Your task to perform on an android device: Open battery settings Image 0: 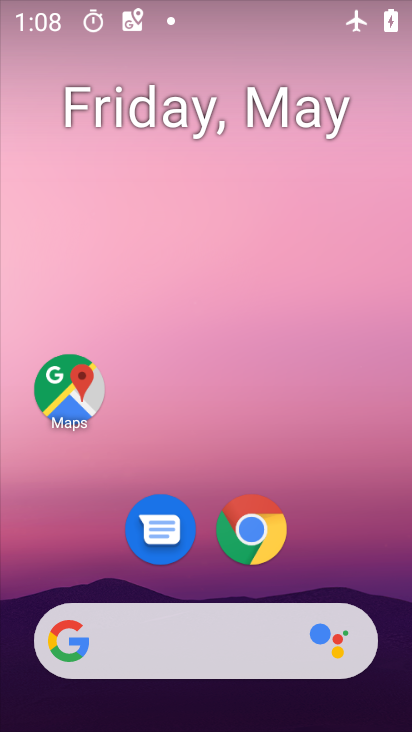
Step 0: drag from (238, 531) to (82, 198)
Your task to perform on an android device: Open battery settings Image 1: 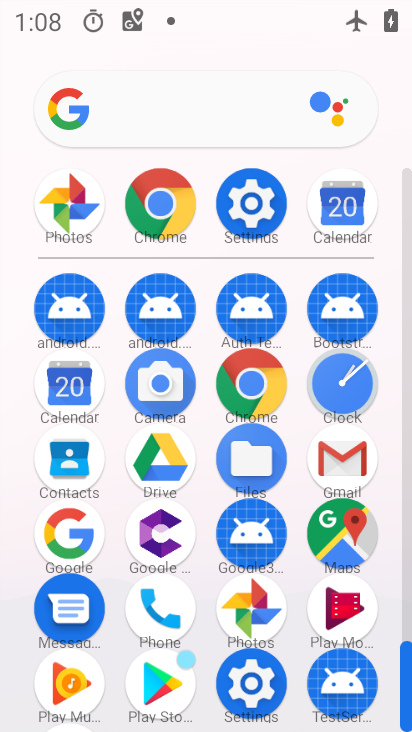
Step 1: click (240, 213)
Your task to perform on an android device: Open battery settings Image 2: 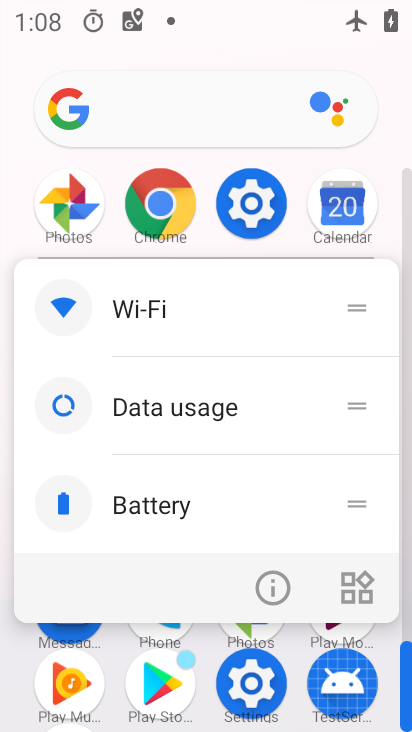
Step 2: click (241, 214)
Your task to perform on an android device: Open battery settings Image 3: 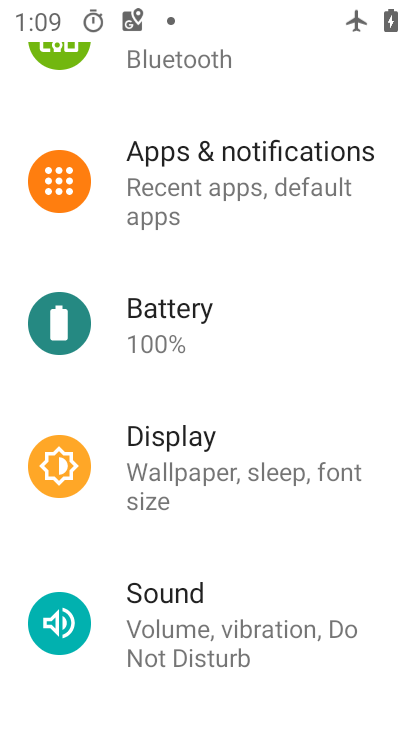
Step 3: click (184, 325)
Your task to perform on an android device: Open battery settings Image 4: 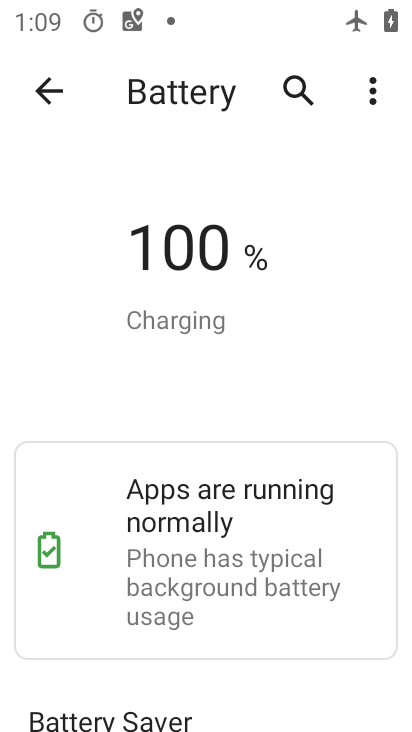
Step 4: task complete